Your task to perform on an android device: open a new tab in the chrome app Image 0: 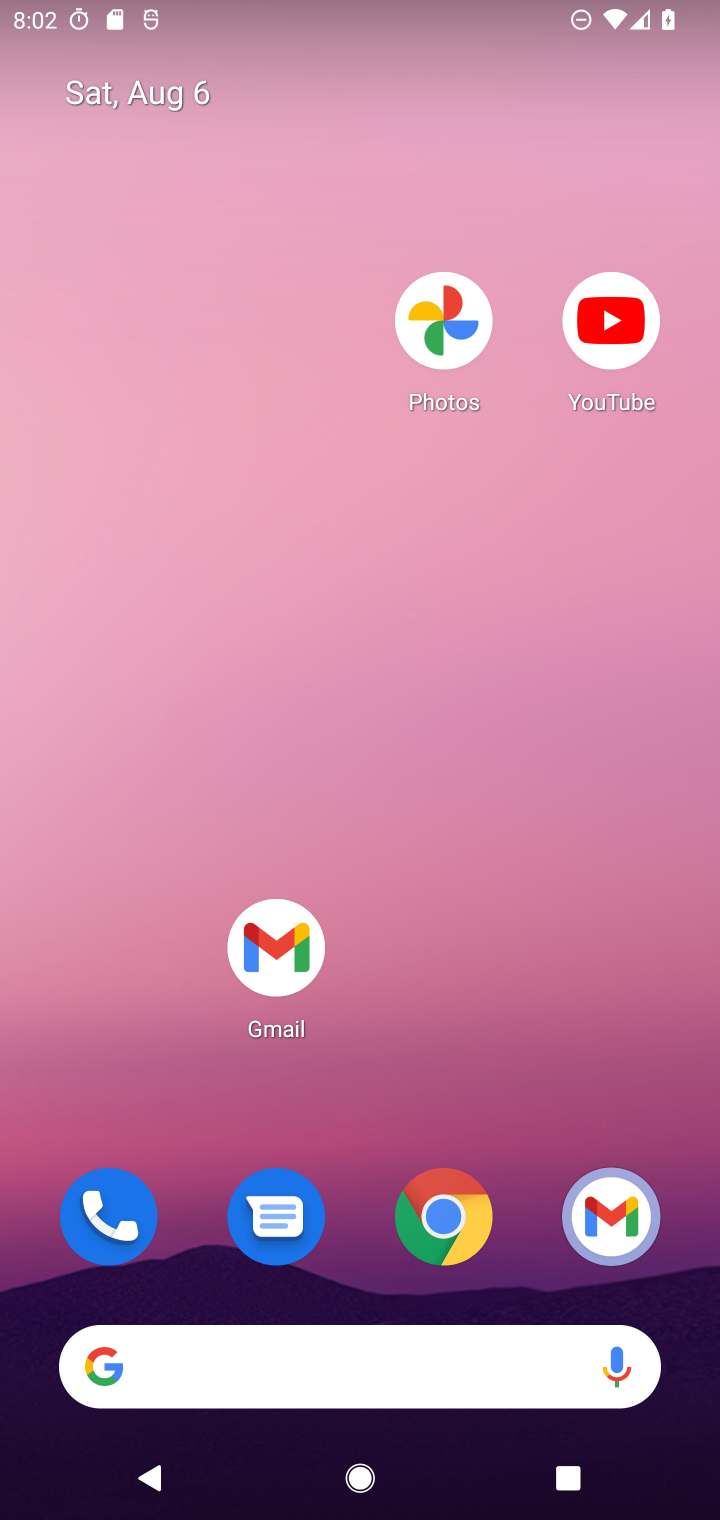
Step 0: drag from (508, 1055) to (439, 152)
Your task to perform on an android device: open a new tab in the chrome app Image 1: 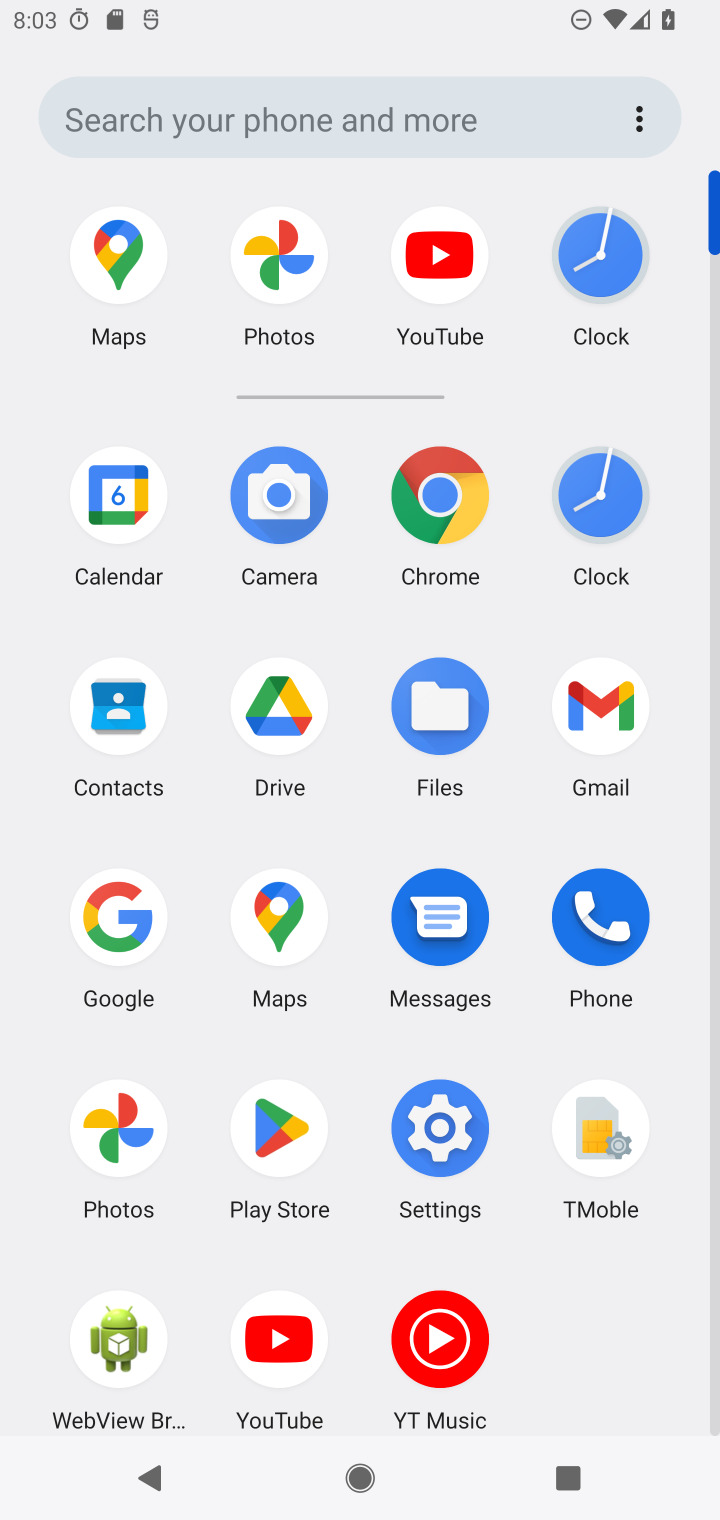
Step 1: click (434, 480)
Your task to perform on an android device: open a new tab in the chrome app Image 2: 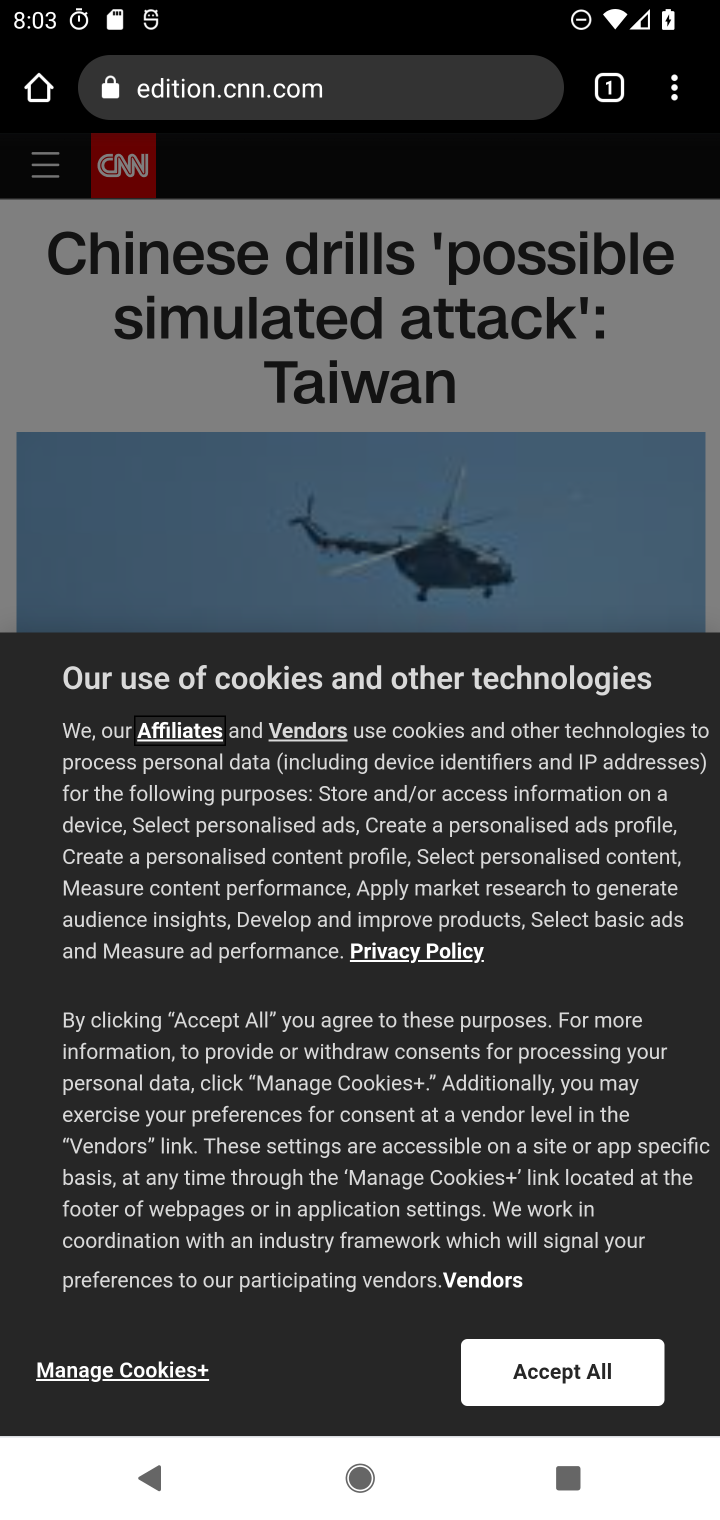
Step 2: task complete